Your task to perform on an android device: turn on translation in the chrome app Image 0: 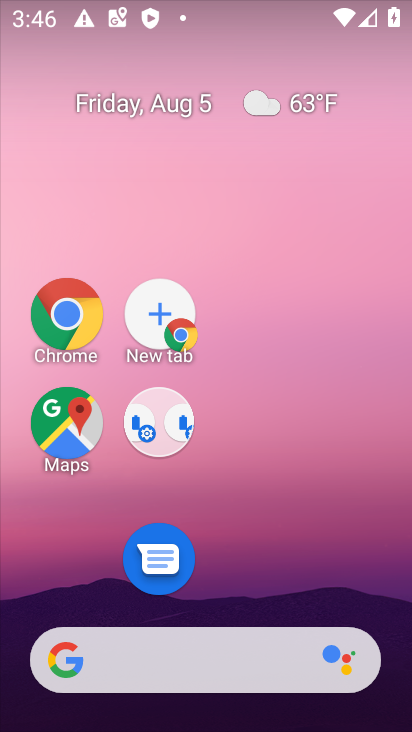
Step 0: drag from (232, 593) to (198, 70)
Your task to perform on an android device: turn on translation in the chrome app Image 1: 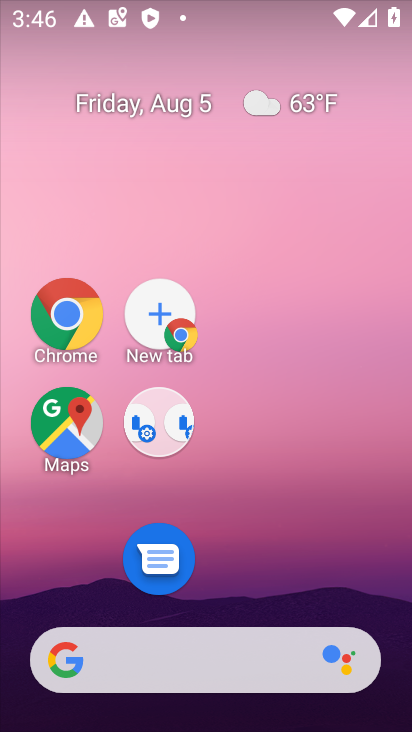
Step 1: drag from (245, 241) to (159, 193)
Your task to perform on an android device: turn on translation in the chrome app Image 2: 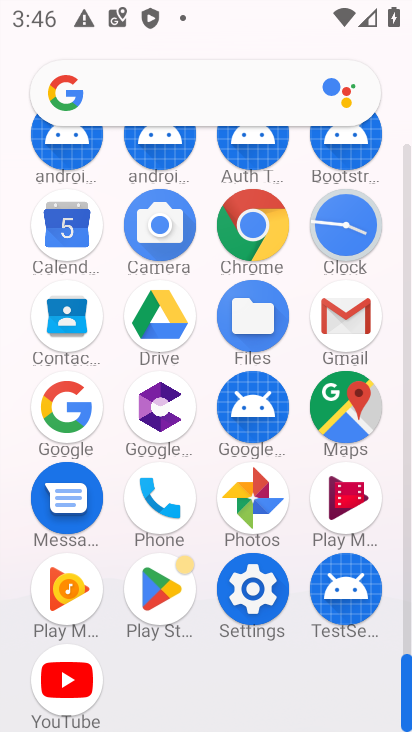
Step 2: click (237, 224)
Your task to perform on an android device: turn on translation in the chrome app Image 3: 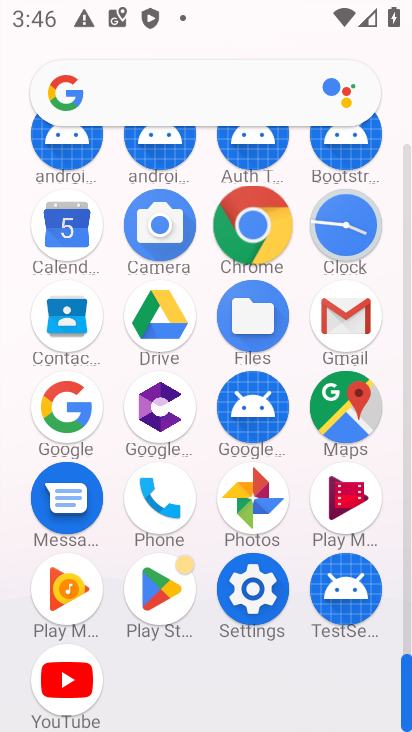
Step 3: click (240, 221)
Your task to perform on an android device: turn on translation in the chrome app Image 4: 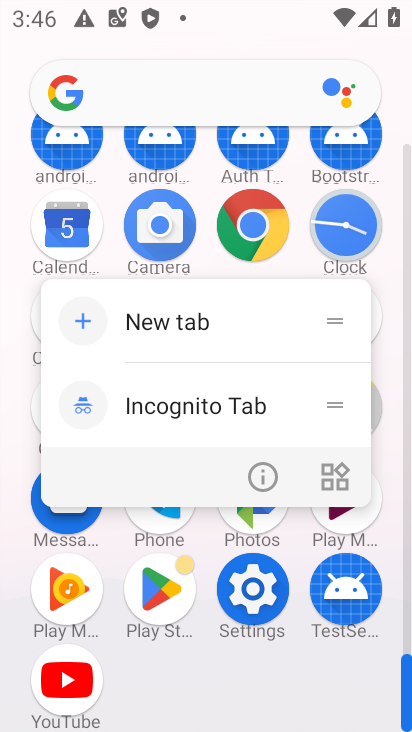
Step 4: click (248, 233)
Your task to perform on an android device: turn on translation in the chrome app Image 5: 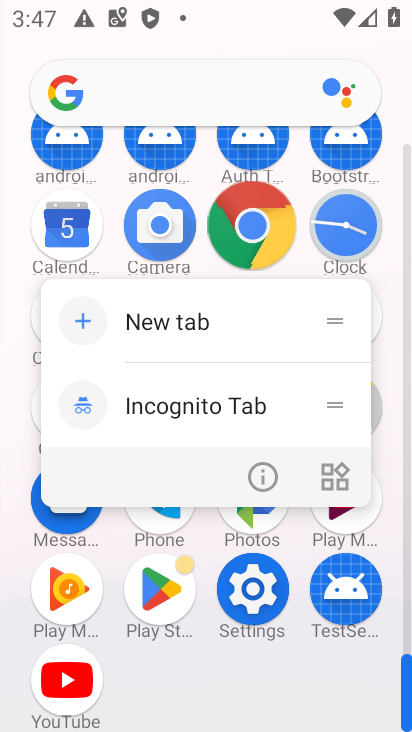
Step 5: click (249, 233)
Your task to perform on an android device: turn on translation in the chrome app Image 6: 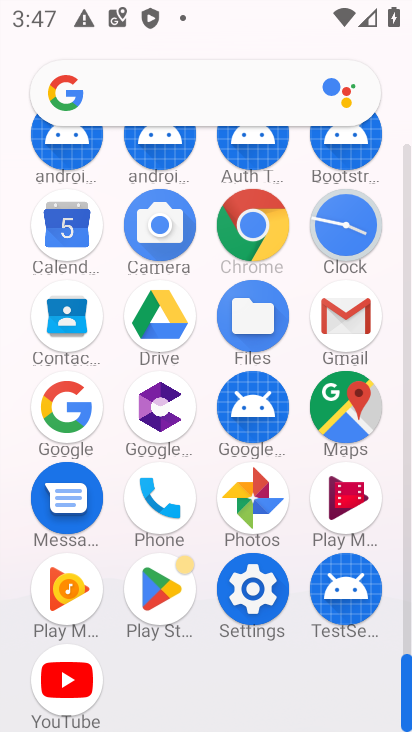
Step 6: click (251, 231)
Your task to perform on an android device: turn on translation in the chrome app Image 7: 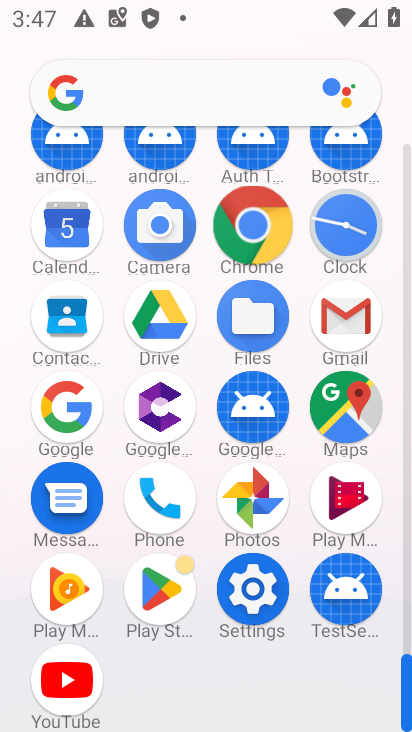
Step 7: click (251, 231)
Your task to perform on an android device: turn on translation in the chrome app Image 8: 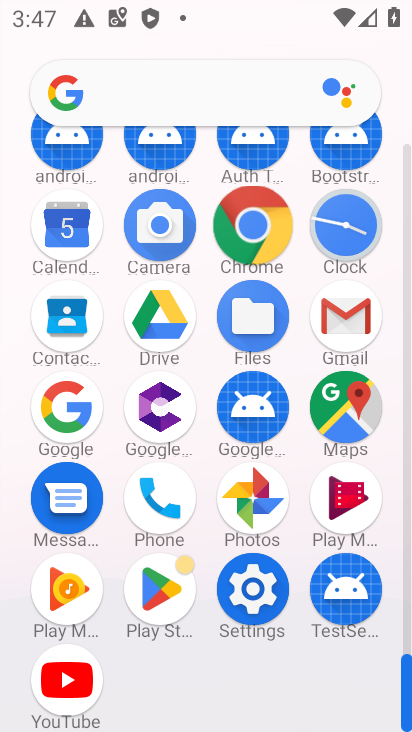
Step 8: click (252, 231)
Your task to perform on an android device: turn on translation in the chrome app Image 9: 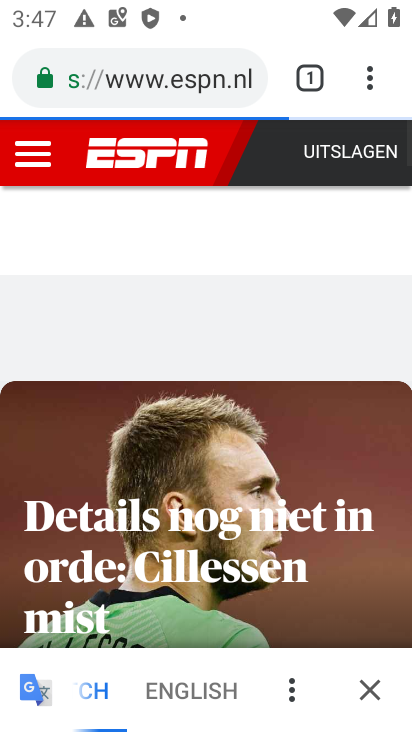
Step 9: drag from (375, 80) to (358, 466)
Your task to perform on an android device: turn on translation in the chrome app Image 10: 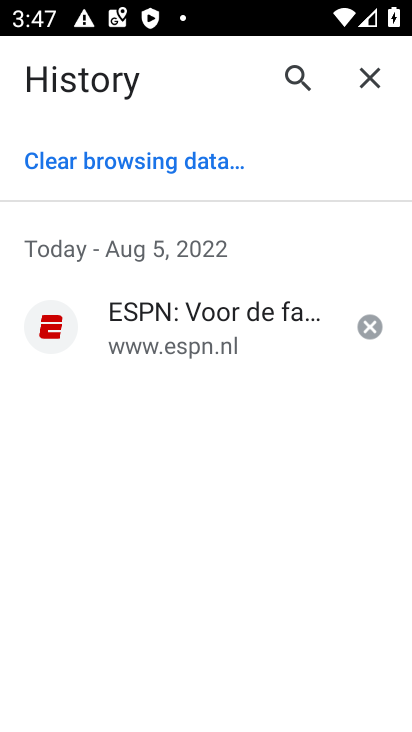
Step 10: click (365, 75)
Your task to perform on an android device: turn on translation in the chrome app Image 11: 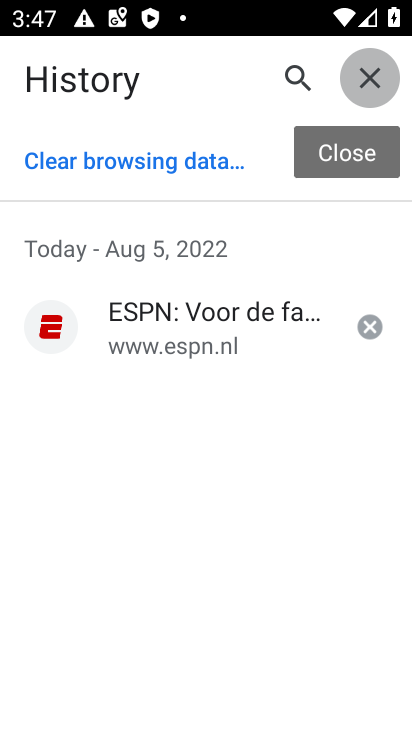
Step 11: click (367, 78)
Your task to perform on an android device: turn on translation in the chrome app Image 12: 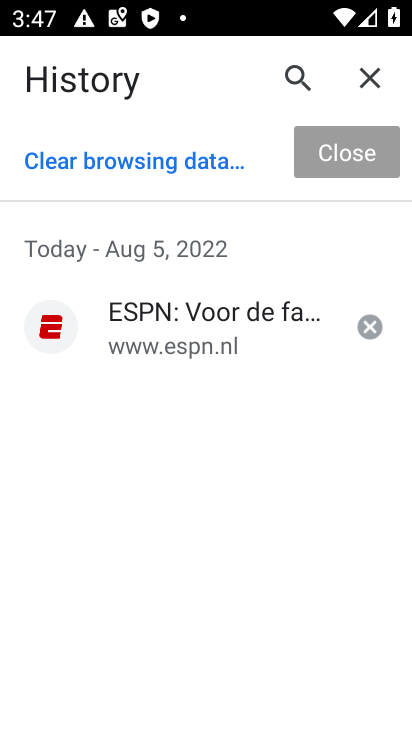
Step 12: click (367, 78)
Your task to perform on an android device: turn on translation in the chrome app Image 13: 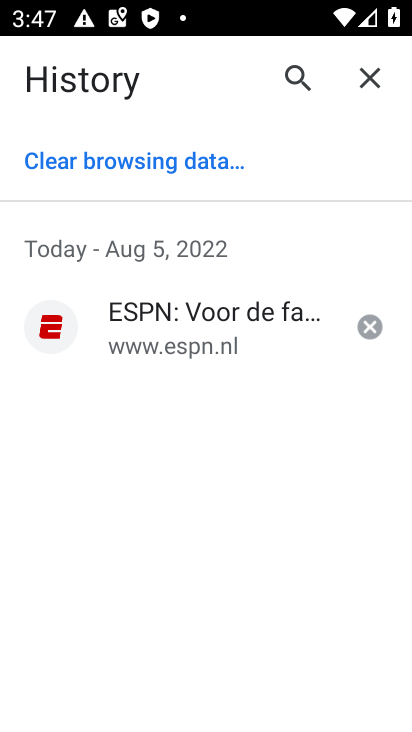
Step 13: click (367, 78)
Your task to perform on an android device: turn on translation in the chrome app Image 14: 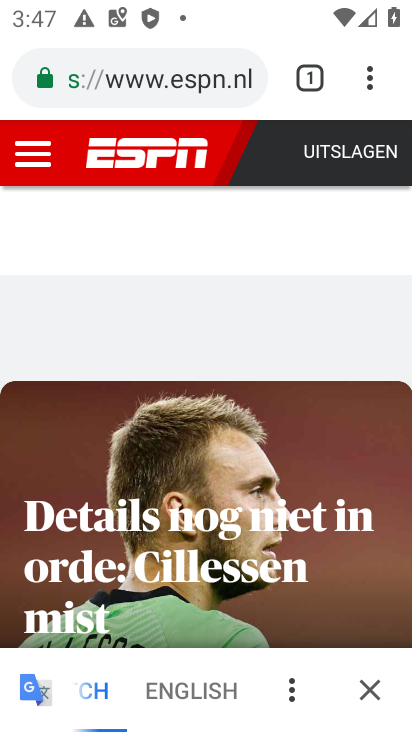
Step 14: click (369, 80)
Your task to perform on an android device: turn on translation in the chrome app Image 15: 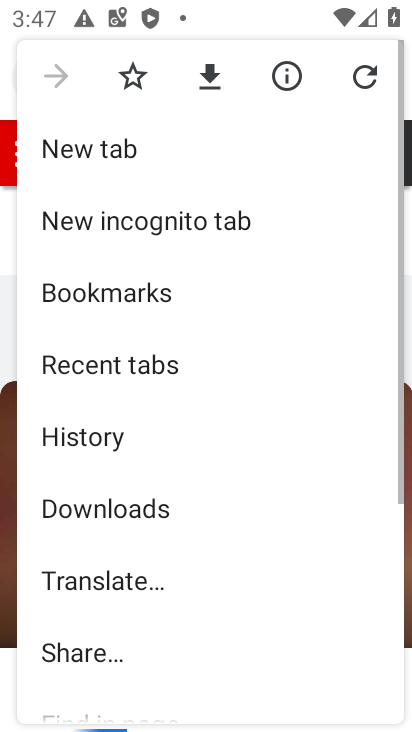
Step 15: drag from (370, 84) to (88, 477)
Your task to perform on an android device: turn on translation in the chrome app Image 16: 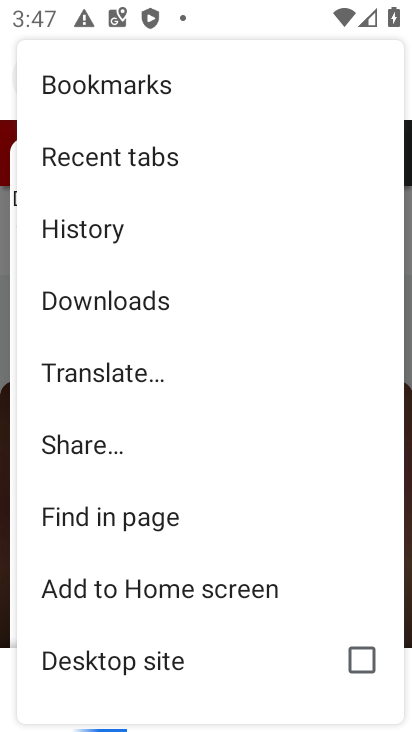
Step 16: drag from (146, 537) to (111, 234)
Your task to perform on an android device: turn on translation in the chrome app Image 17: 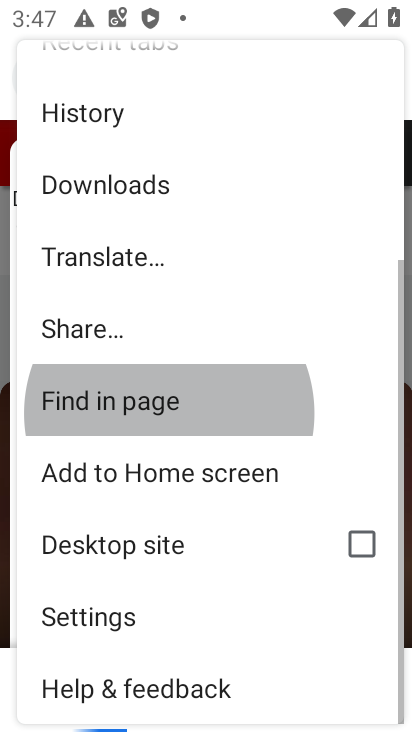
Step 17: drag from (114, 542) to (125, 175)
Your task to perform on an android device: turn on translation in the chrome app Image 18: 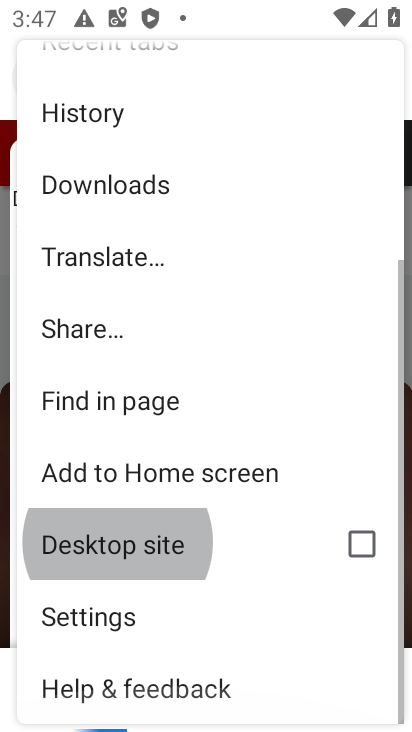
Step 18: drag from (139, 502) to (132, 257)
Your task to perform on an android device: turn on translation in the chrome app Image 19: 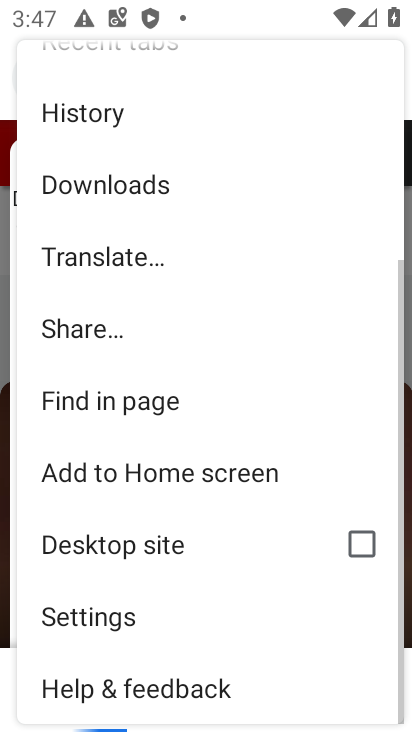
Step 19: click (73, 615)
Your task to perform on an android device: turn on translation in the chrome app Image 20: 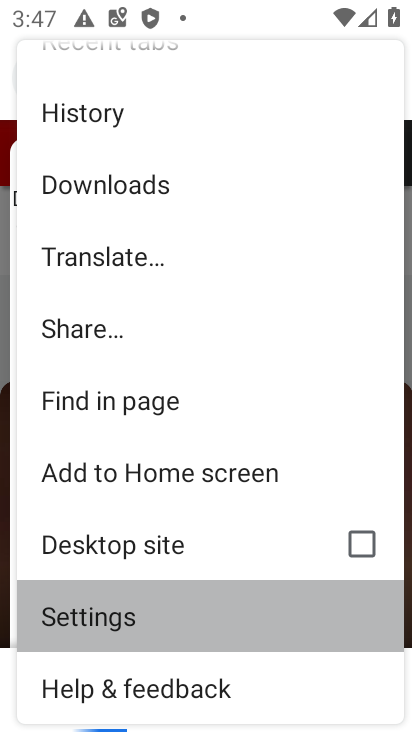
Step 20: click (76, 616)
Your task to perform on an android device: turn on translation in the chrome app Image 21: 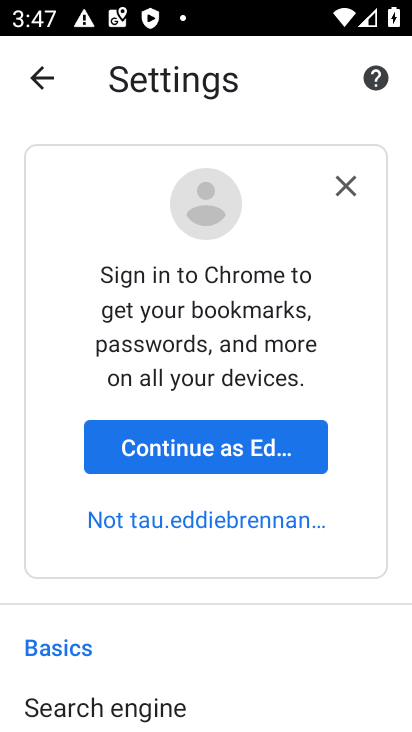
Step 21: click (345, 188)
Your task to perform on an android device: turn on translation in the chrome app Image 22: 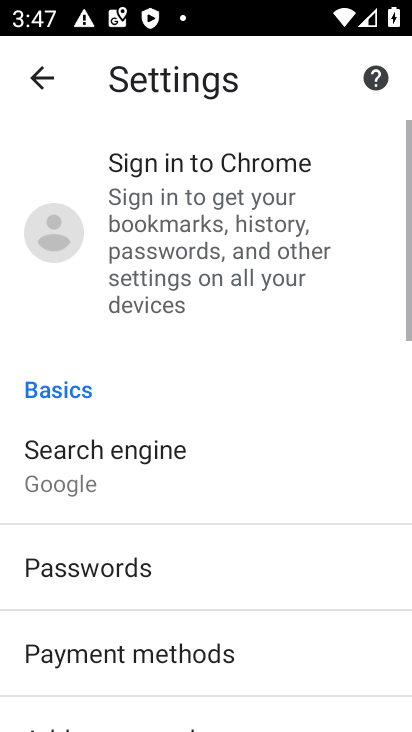
Step 22: drag from (165, 629) to (139, 353)
Your task to perform on an android device: turn on translation in the chrome app Image 23: 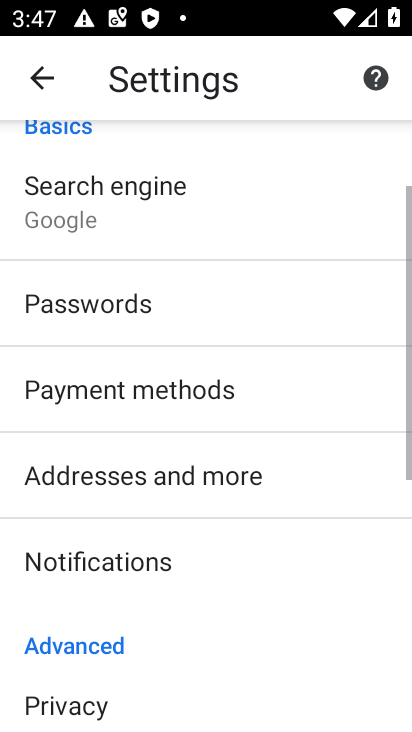
Step 23: drag from (212, 535) to (205, 358)
Your task to perform on an android device: turn on translation in the chrome app Image 24: 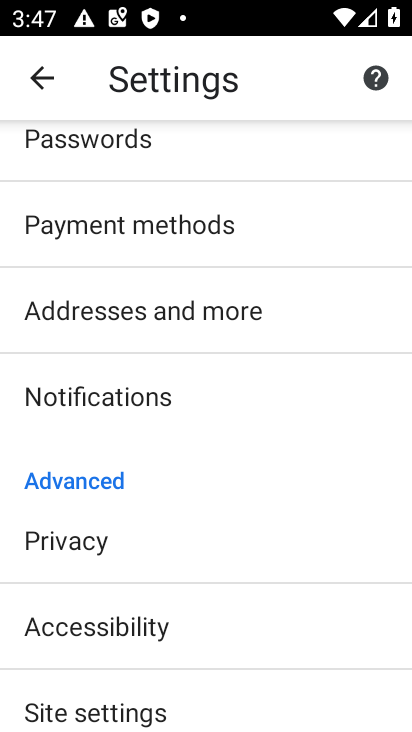
Step 24: drag from (122, 535) to (111, 161)
Your task to perform on an android device: turn on translation in the chrome app Image 25: 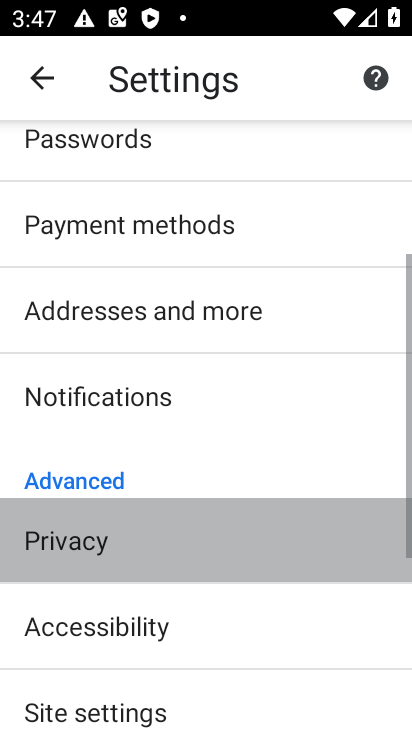
Step 25: drag from (168, 395) to (168, 145)
Your task to perform on an android device: turn on translation in the chrome app Image 26: 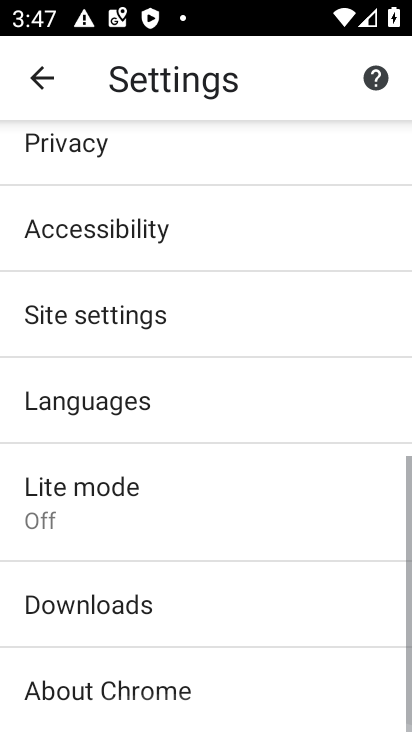
Step 26: drag from (192, 411) to (238, 199)
Your task to perform on an android device: turn on translation in the chrome app Image 27: 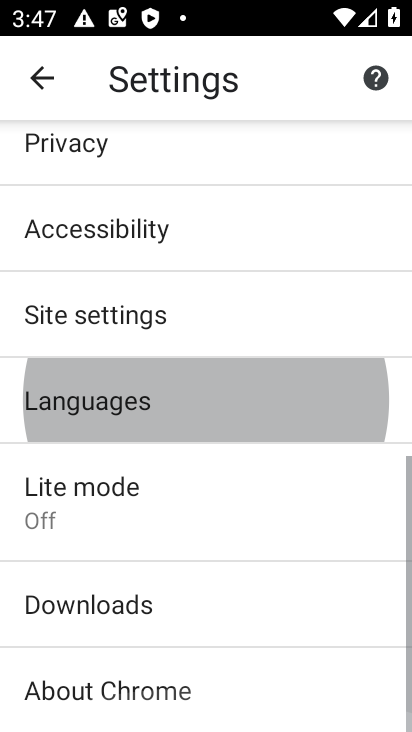
Step 27: drag from (207, 516) to (186, 230)
Your task to perform on an android device: turn on translation in the chrome app Image 28: 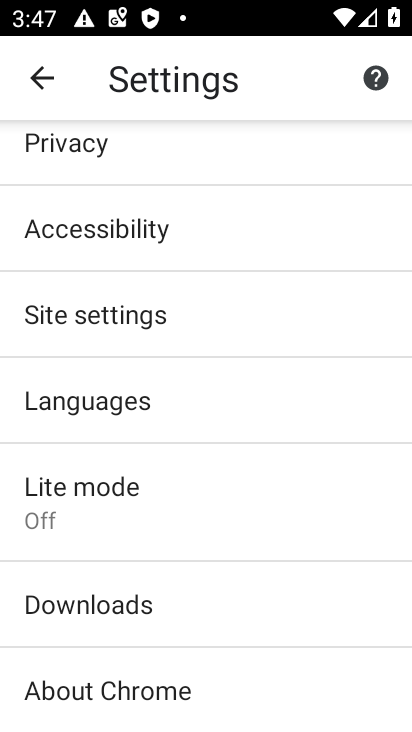
Step 28: click (106, 402)
Your task to perform on an android device: turn on translation in the chrome app Image 29: 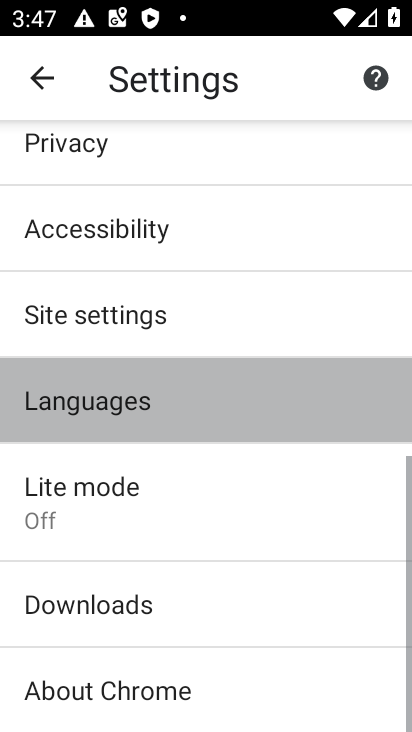
Step 29: click (107, 411)
Your task to perform on an android device: turn on translation in the chrome app Image 30: 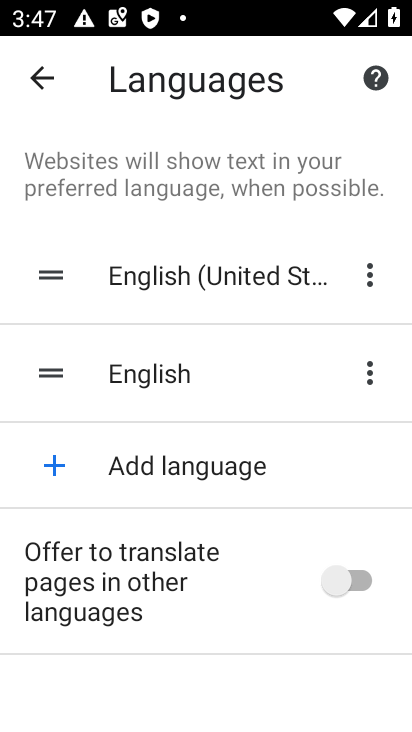
Step 30: click (325, 571)
Your task to perform on an android device: turn on translation in the chrome app Image 31: 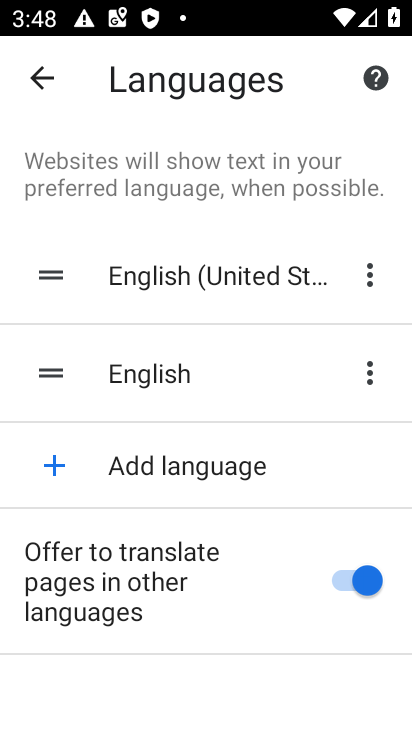
Step 31: task complete